Your task to perform on an android device: Open Wikipedia Image 0: 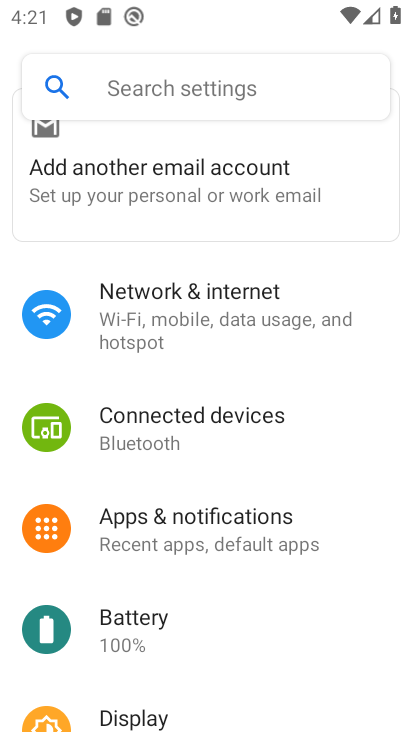
Step 0: press back button
Your task to perform on an android device: Open Wikipedia Image 1: 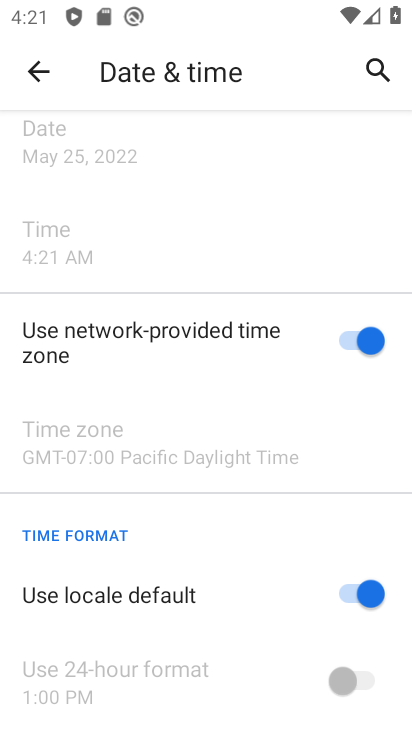
Step 1: click (41, 72)
Your task to perform on an android device: Open Wikipedia Image 2: 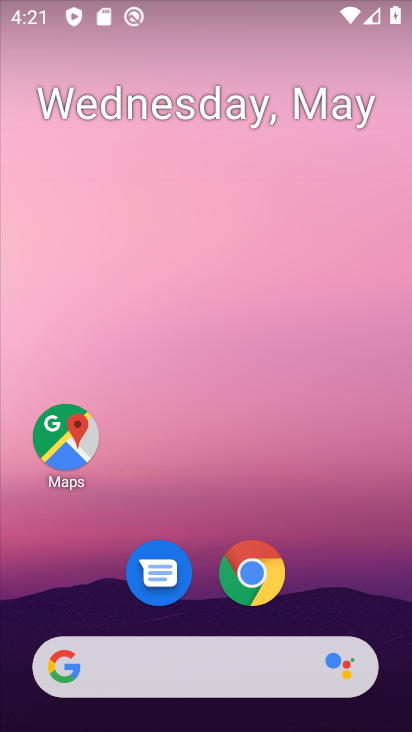
Step 2: drag from (381, 641) to (199, 143)
Your task to perform on an android device: Open Wikipedia Image 3: 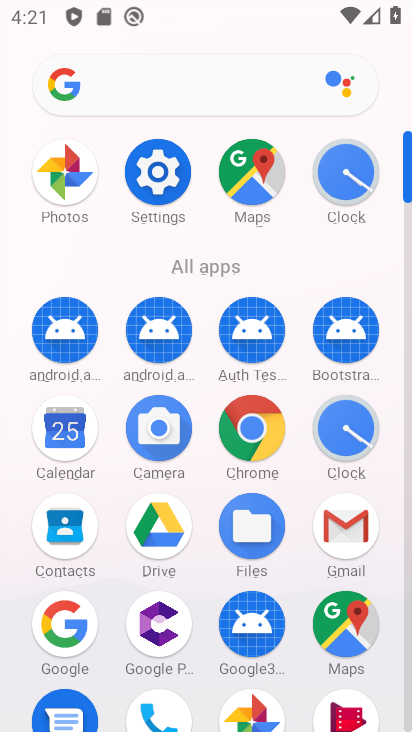
Step 3: click (261, 434)
Your task to perform on an android device: Open Wikipedia Image 4: 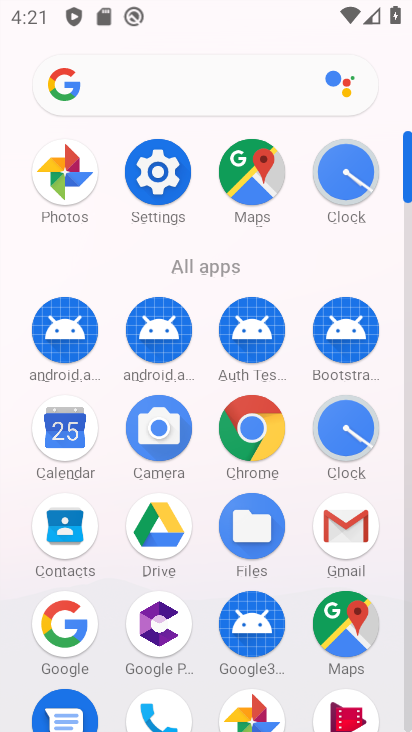
Step 4: click (261, 434)
Your task to perform on an android device: Open Wikipedia Image 5: 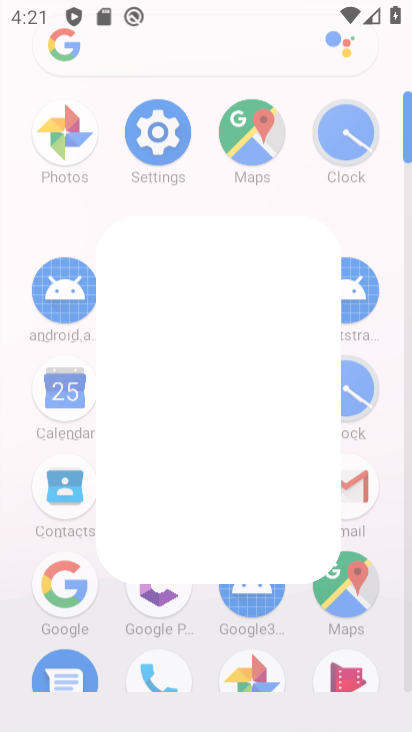
Step 5: click (261, 434)
Your task to perform on an android device: Open Wikipedia Image 6: 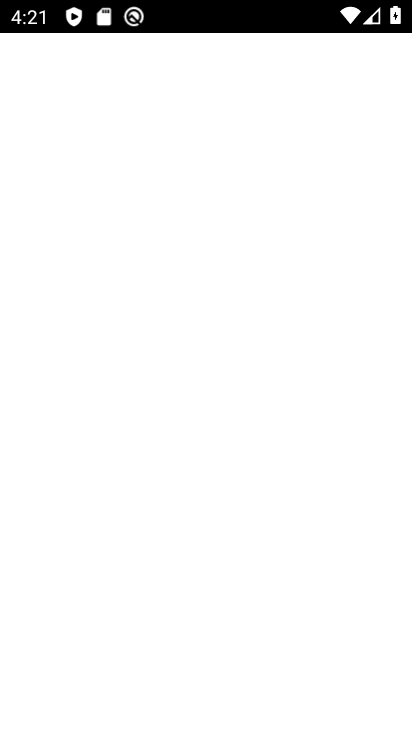
Step 6: click (257, 428)
Your task to perform on an android device: Open Wikipedia Image 7: 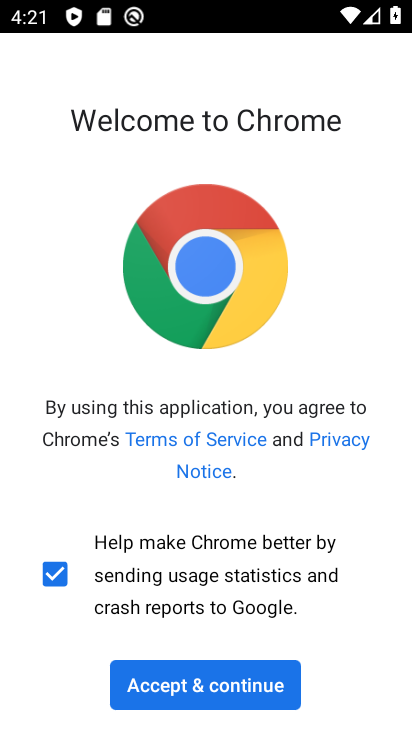
Step 7: click (223, 680)
Your task to perform on an android device: Open Wikipedia Image 8: 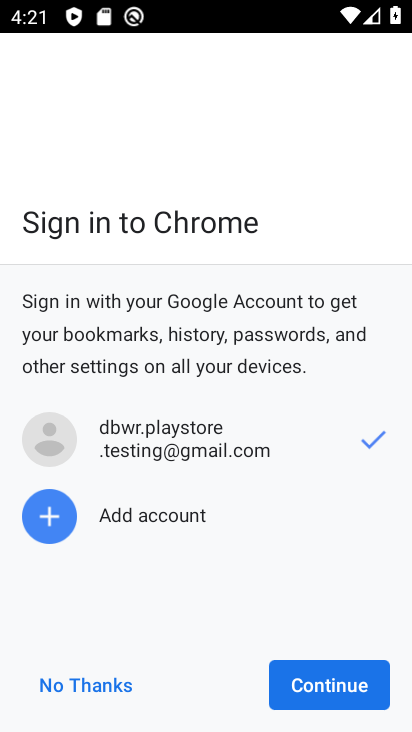
Step 8: click (223, 680)
Your task to perform on an android device: Open Wikipedia Image 9: 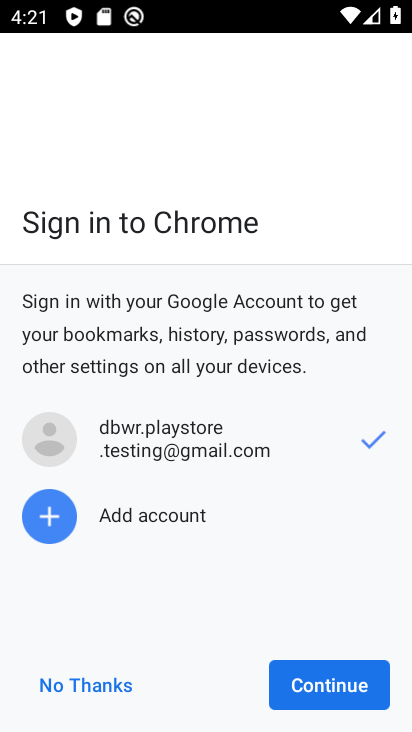
Step 9: click (223, 680)
Your task to perform on an android device: Open Wikipedia Image 10: 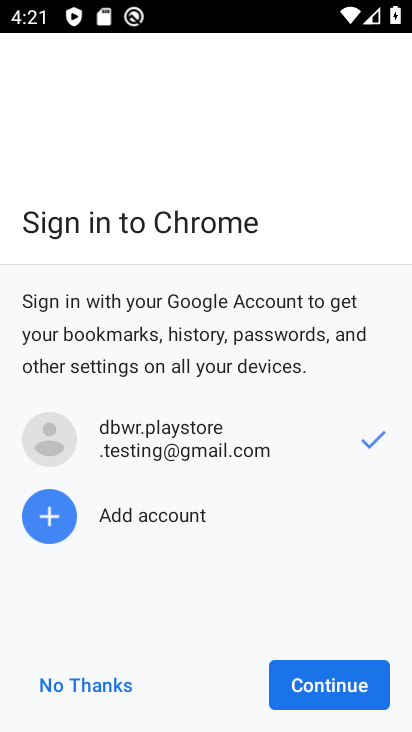
Step 10: click (224, 680)
Your task to perform on an android device: Open Wikipedia Image 11: 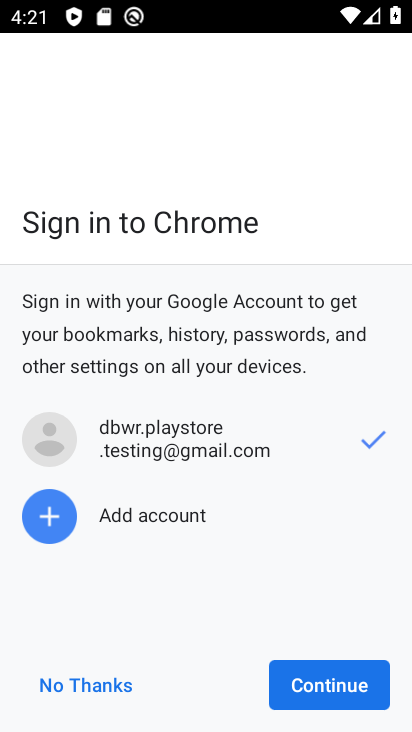
Step 11: click (224, 681)
Your task to perform on an android device: Open Wikipedia Image 12: 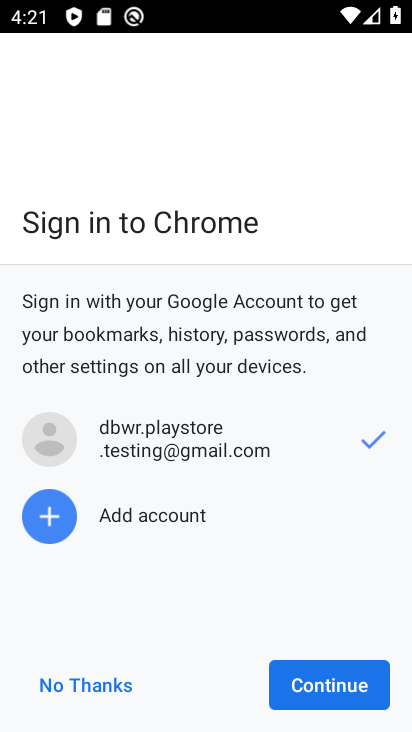
Step 12: click (355, 685)
Your task to perform on an android device: Open Wikipedia Image 13: 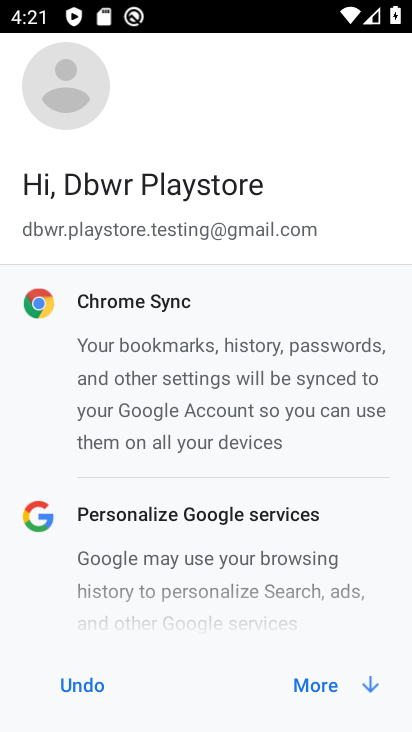
Step 13: click (313, 679)
Your task to perform on an android device: Open Wikipedia Image 14: 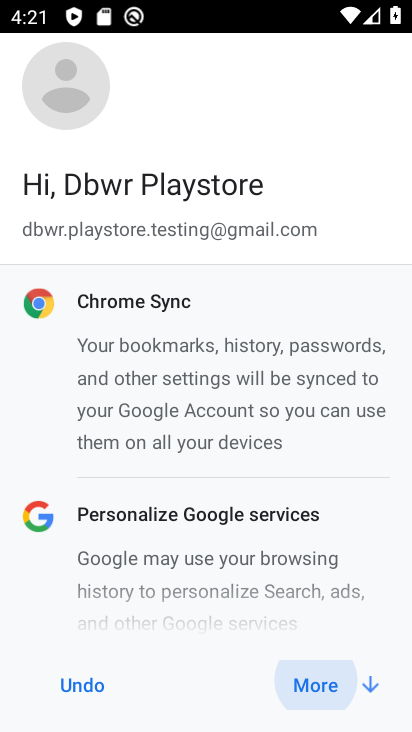
Step 14: click (311, 678)
Your task to perform on an android device: Open Wikipedia Image 15: 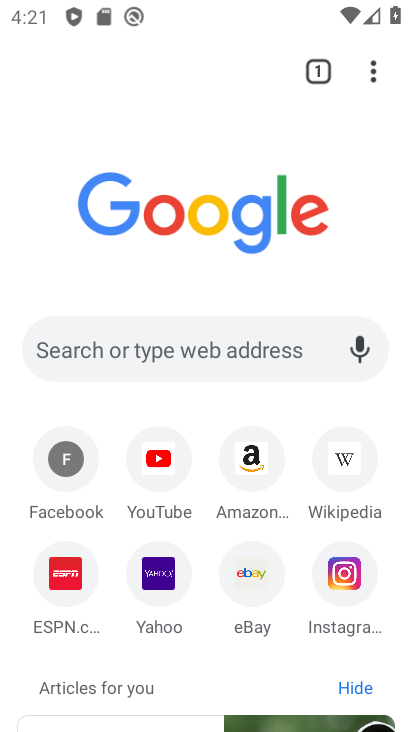
Step 15: click (329, 466)
Your task to perform on an android device: Open Wikipedia Image 16: 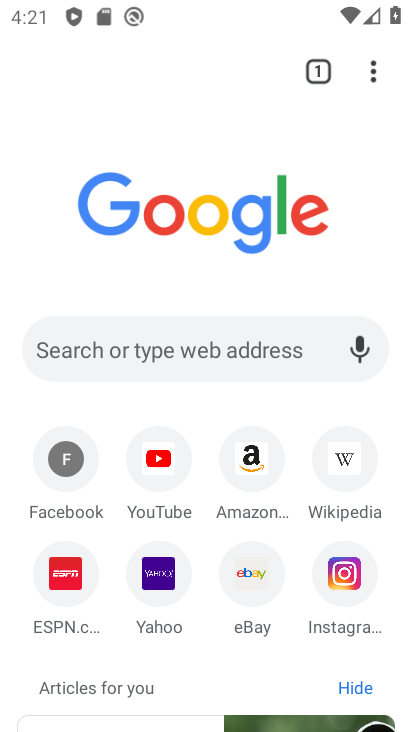
Step 16: click (331, 464)
Your task to perform on an android device: Open Wikipedia Image 17: 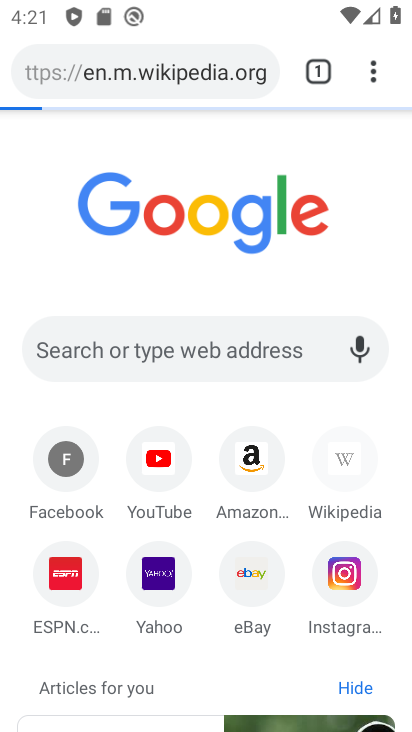
Step 17: click (337, 464)
Your task to perform on an android device: Open Wikipedia Image 18: 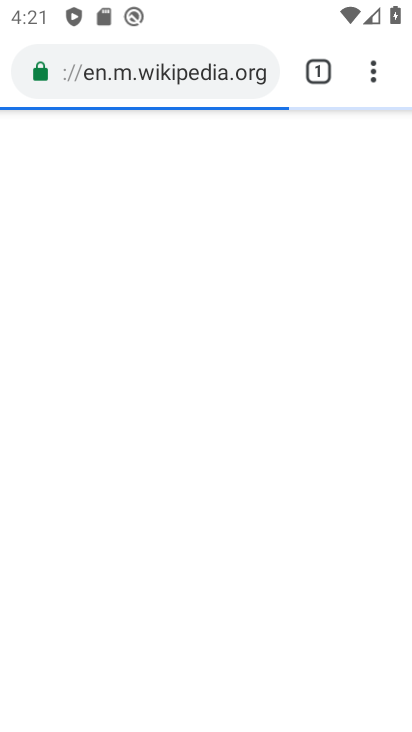
Step 18: click (343, 464)
Your task to perform on an android device: Open Wikipedia Image 19: 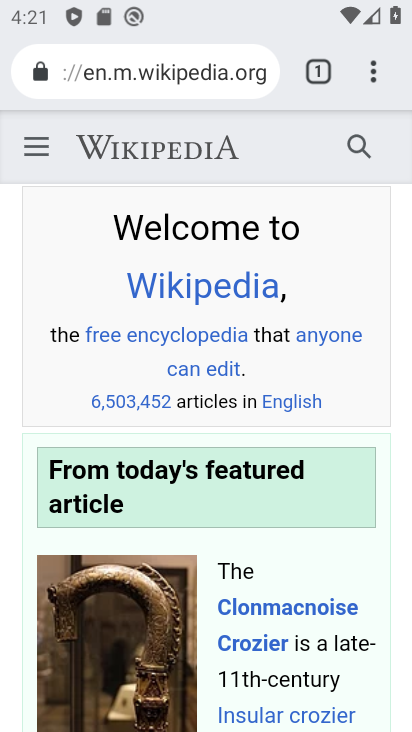
Step 19: task complete